Your task to perform on an android device: turn on showing notifications on the lock screen Image 0: 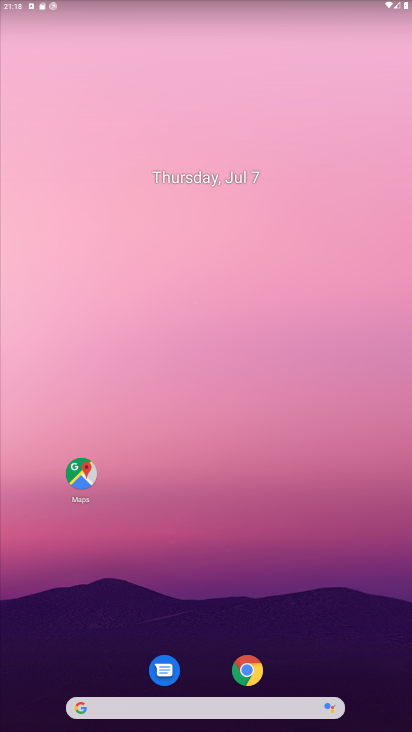
Step 0: drag from (32, 204) to (230, 150)
Your task to perform on an android device: turn on showing notifications on the lock screen Image 1: 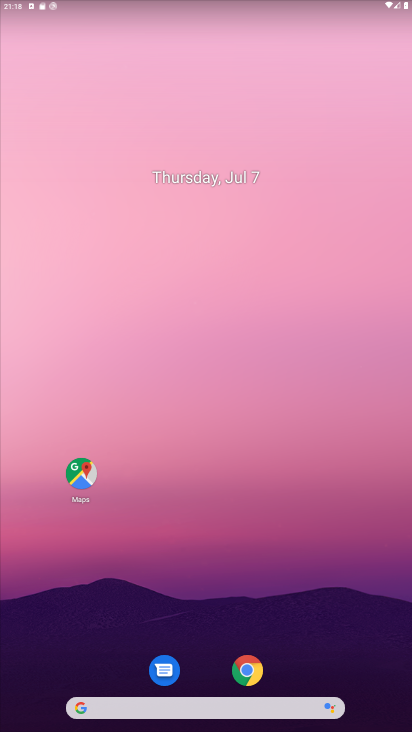
Step 1: drag from (38, 727) to (273, 131)
Your task to perform on an android device: turn on showing notifications on the lock screen Image 2: 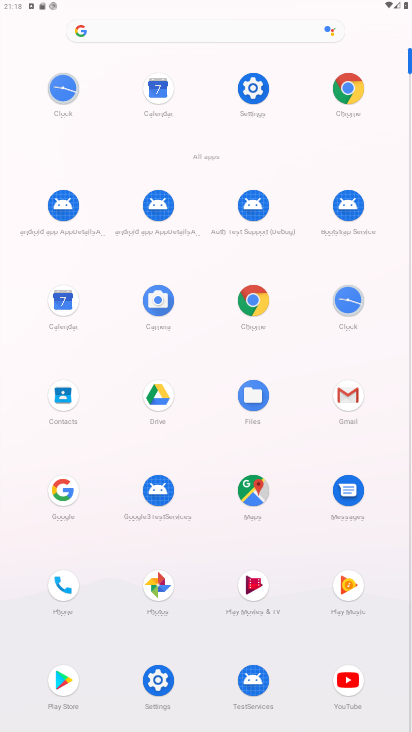
Step 2: click (273, 95)
Your task to perform on an android device: turn on showing notifications on the lock screen Image 3: 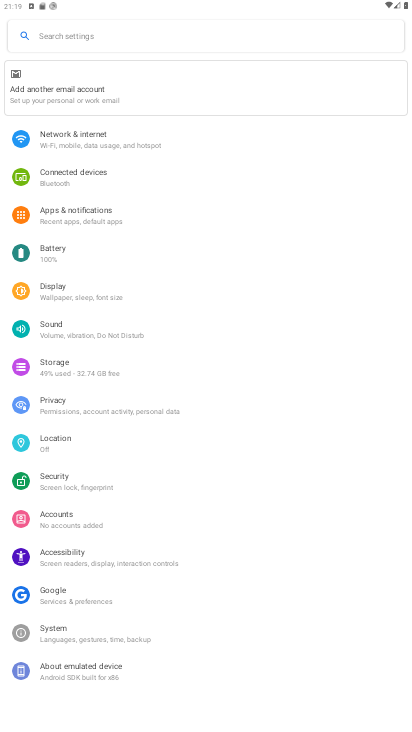
Step 3: click (167, 223)
Your task to perform on an android device: turn on showing notifications on the lock screen Image 4: 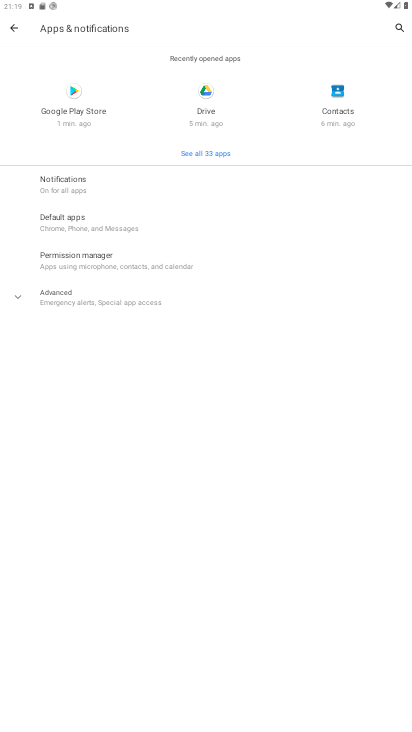
Step 4: click (175, 287)
Your task to perform on an android device: turn on showing notifications on the lock screen Image 5: 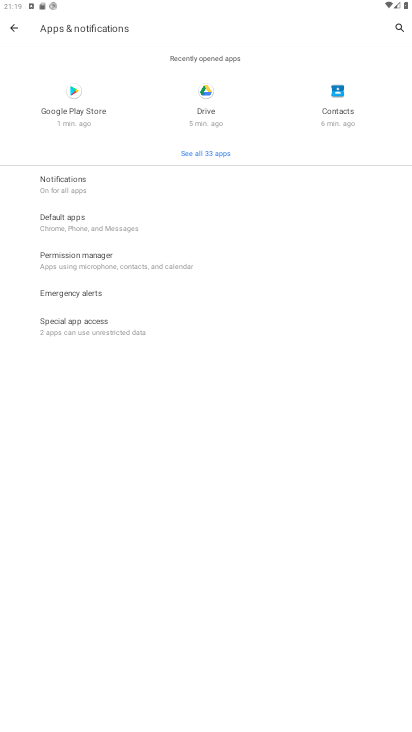
Step 5: click (127, 188)
Your task to perform on an android device: turn on showing notifications on the lock screen Image 6: 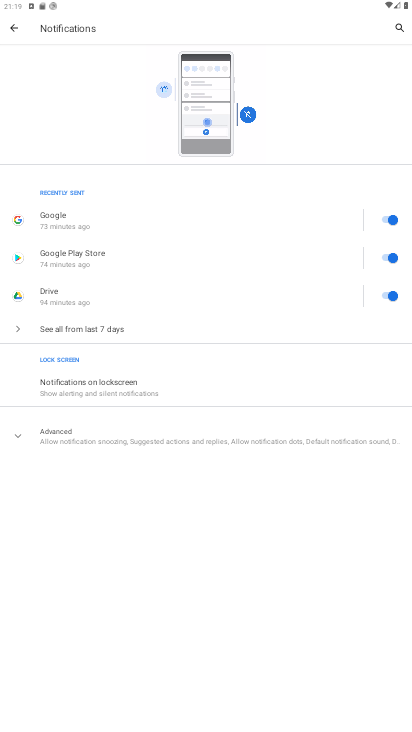
Step 6: click (171, 430)
Your task to perform on an android device: turn on showing notifications on the lock screen Image 7: 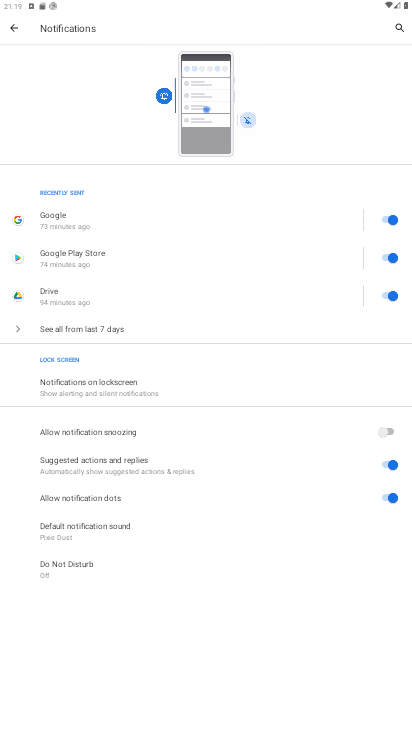
Step 7: click (234, 379)
Your task to perform on an android device: turn on showing notifications on the lock screen Image 8: 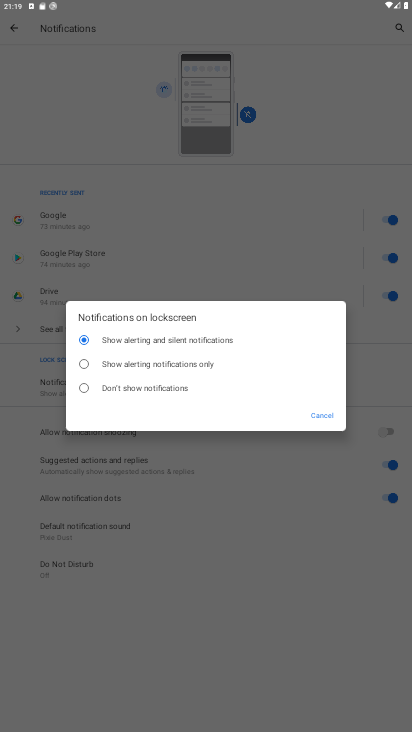
Step 8: task complete